Your task to perform on an android device: turn on wifi Image 0: 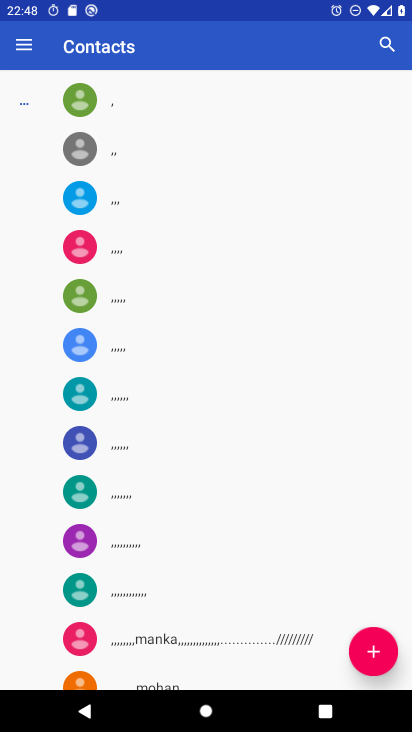
Step 0: press home button
Your task to perform on an android device: turn on wifi Image 1: 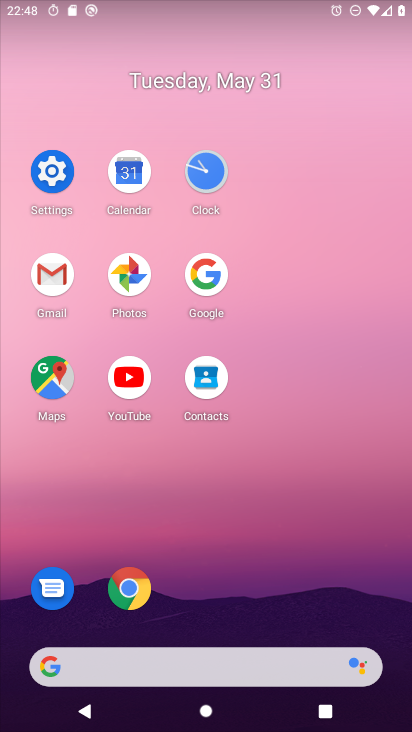
Step 1: click (52, 169)
Your task to perform on an android device: turn on wifi Image 2: 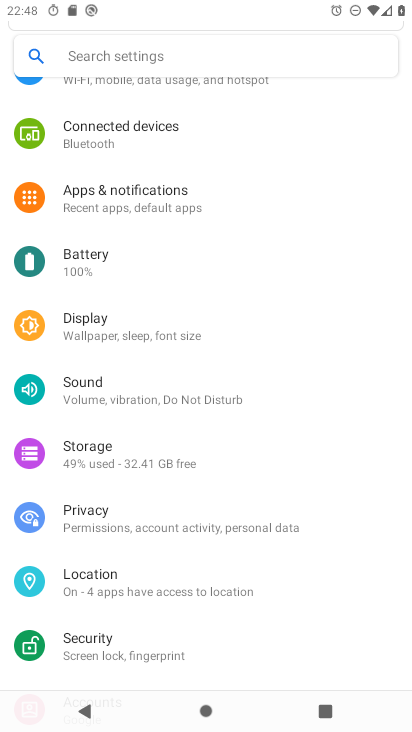
Step 2: click (208, 92)
Your task to perform on an android device: turn on wifi Image 3: 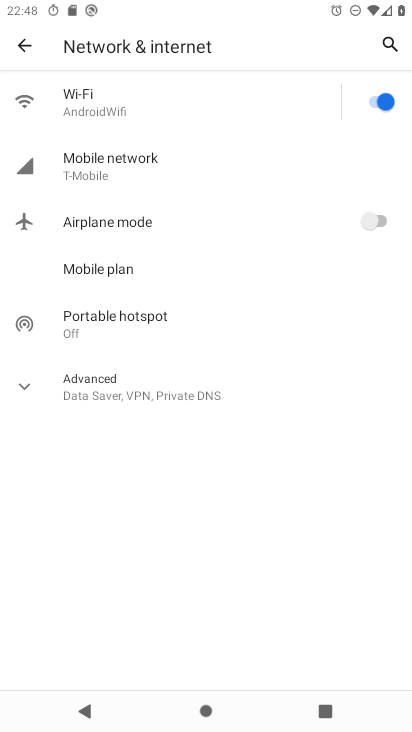
Step 3: task complete